Your task to perform on an android device: delete a single message in the gmail app Image 0: 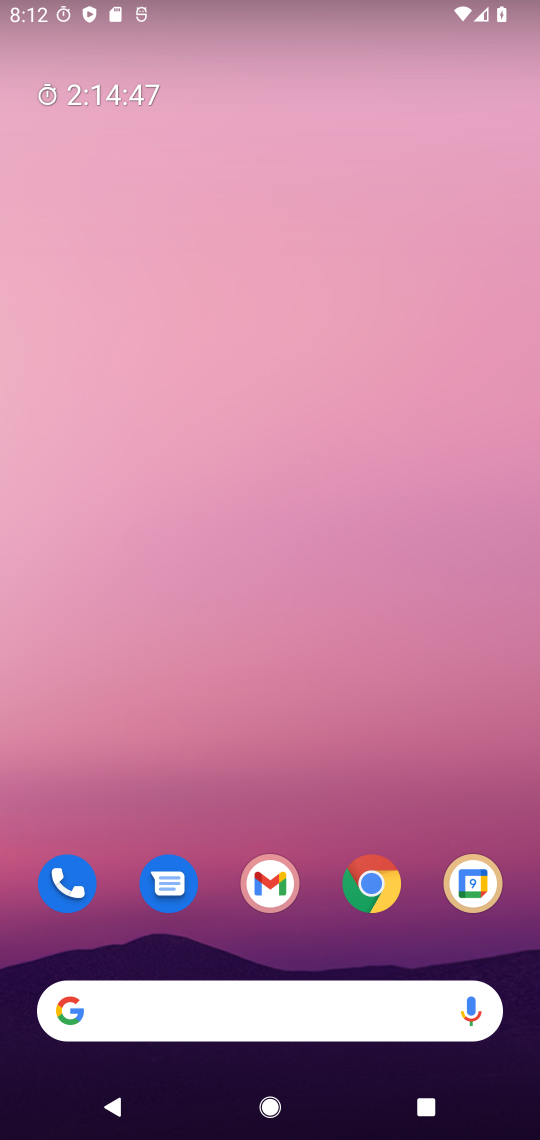
Step 0: click (267, 864)
Your task to perform on an android device: delete a single message in the gmail app Image 1: 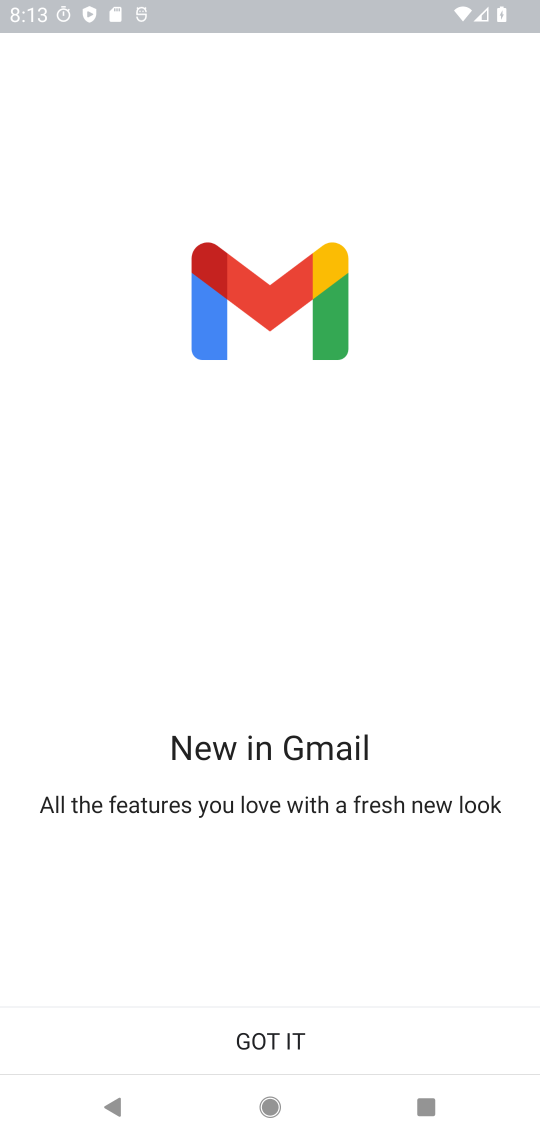
Step 1: click (267, 1026)
Your task to perform on an android device: delete a single message in the gmail app Image 2: 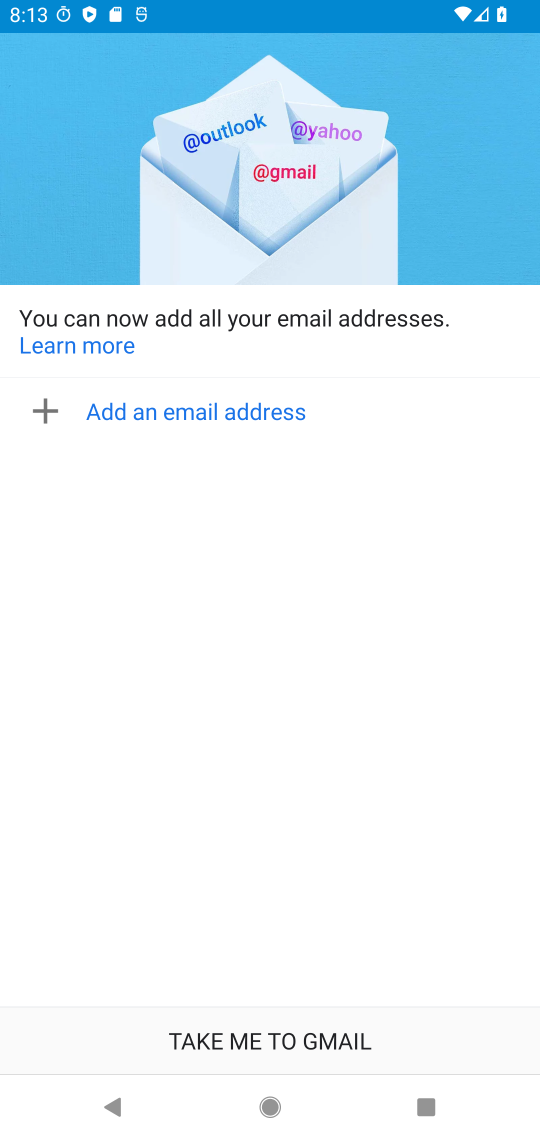
Step 2: click (267, 1026)
Your task to perform on an android device: delete a single message in the gmail app Image 3: 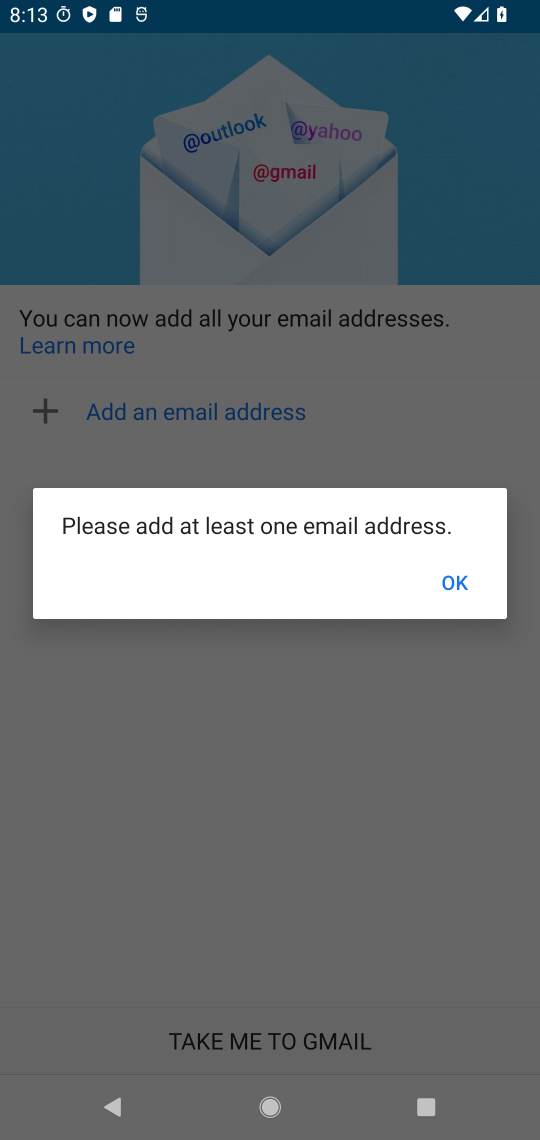
Step 3: task complete